Your task to perform on an android device: see sites visited before in the chrome app Image 0: 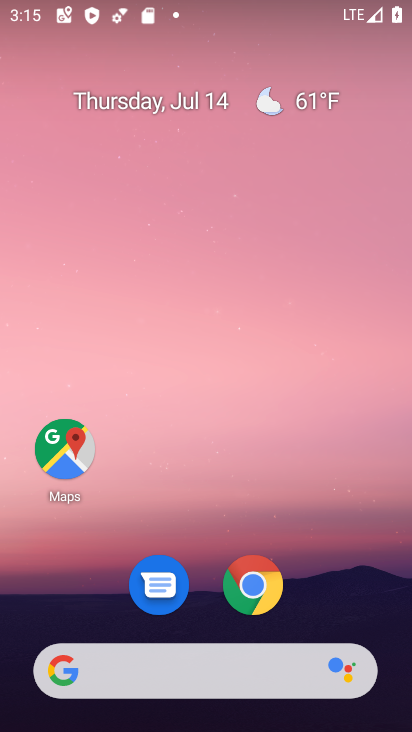
Step 0: click (263, 585)
Your task to perform on an android device: see sites visited before in the chrome app Image 1: 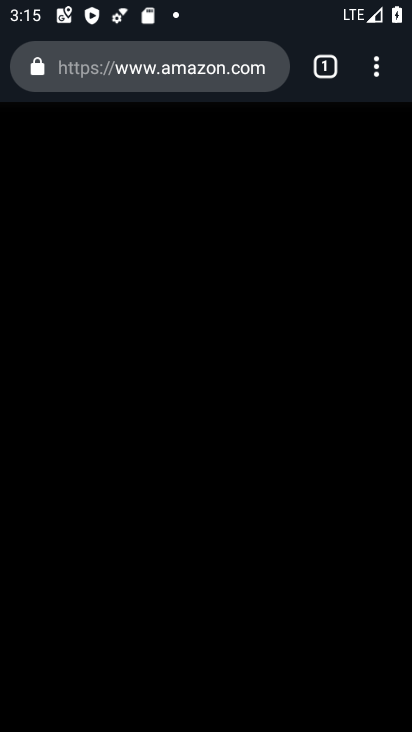
Step 1: click (377, 73)
Your task to perform on an android device: see sites visited before in the chrome app Image 2: 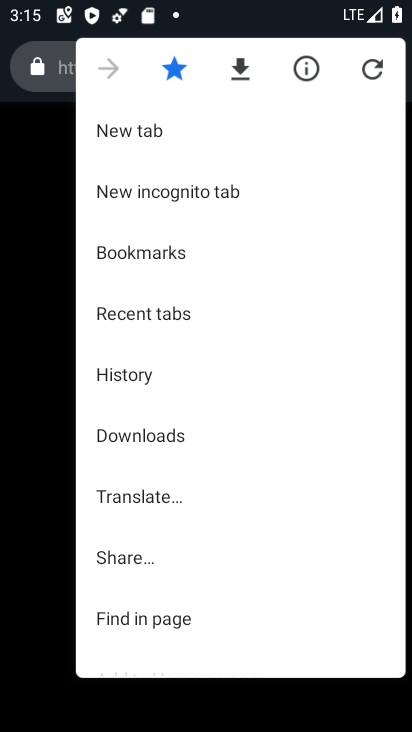
Step 2: click (161, 314)
Your task to perform on an android device: see sites visited before in the chrome app Image 3: 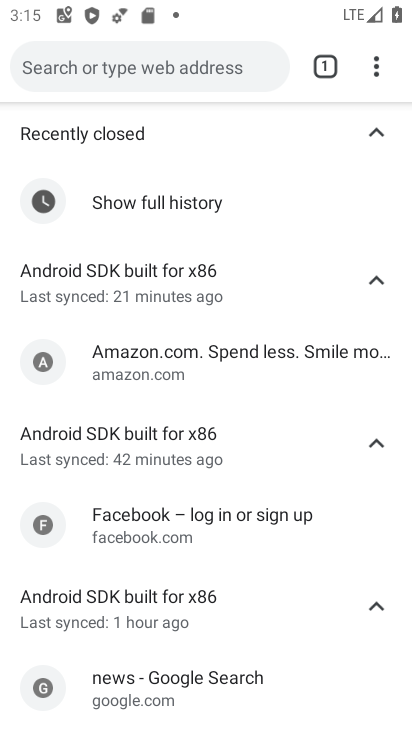
Step 3: task complete